Your task to perform on an android device: Go to Android settings Image 0: 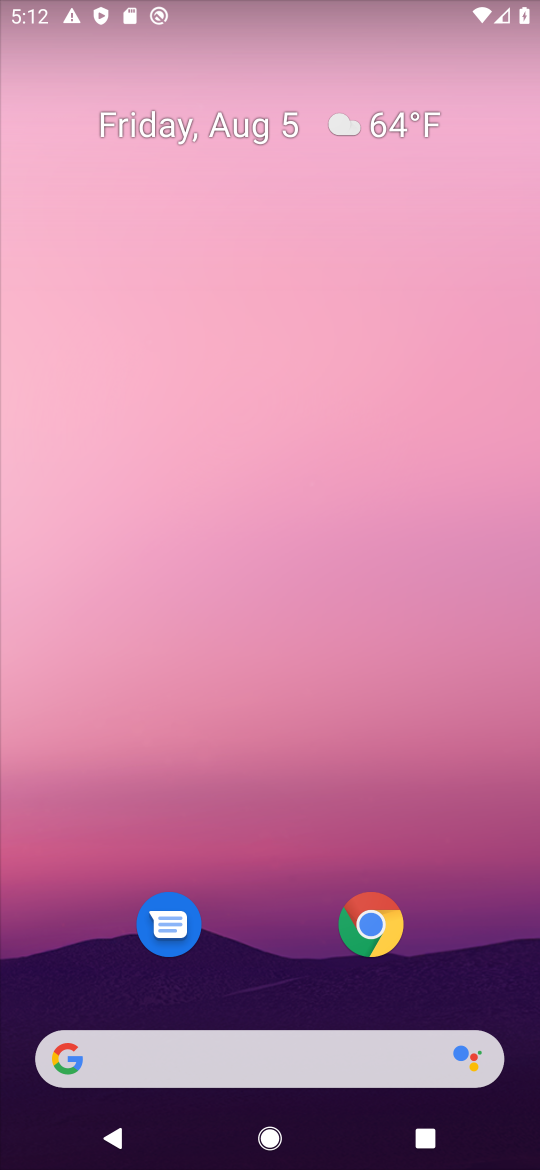
Step 0: drag from (198, 890) to (329, 152)
Your task to perform on an android device: Go to Android settings Image 1: 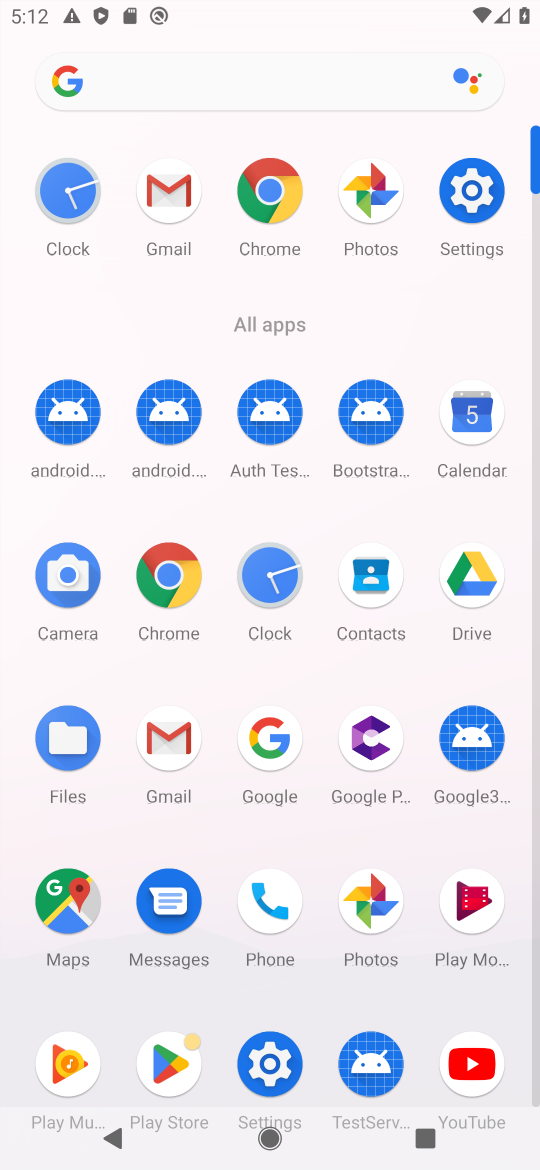
Step 1: click (282, 1052)
Your task to perform on an android device: Go to Android settings Image 2: 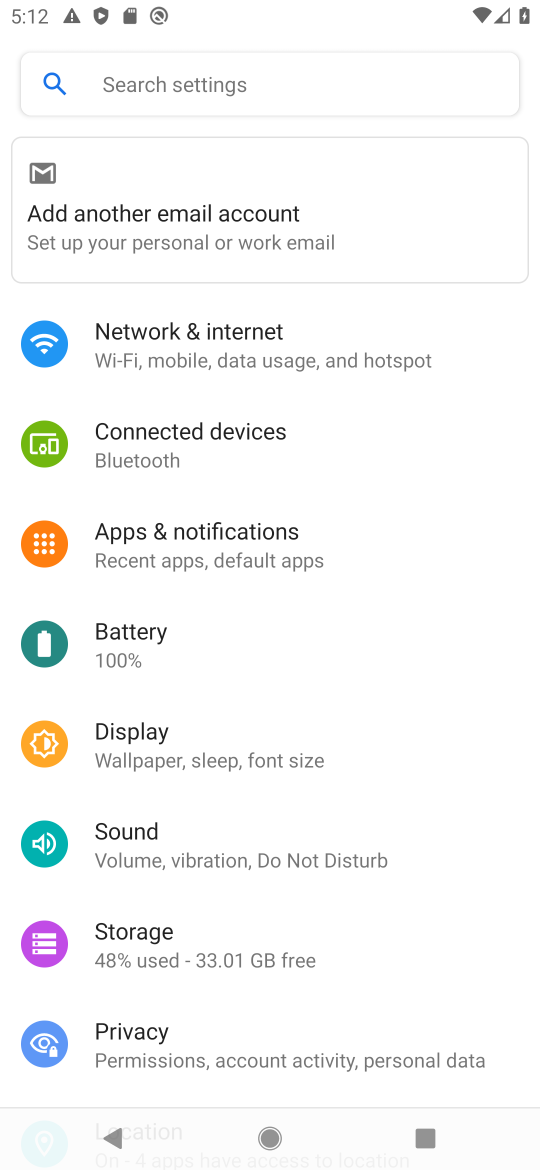
Step 2: drag from (384, 1061) to (354, 202)
Your task to perform on an android device: Go to Android settings Image 3: 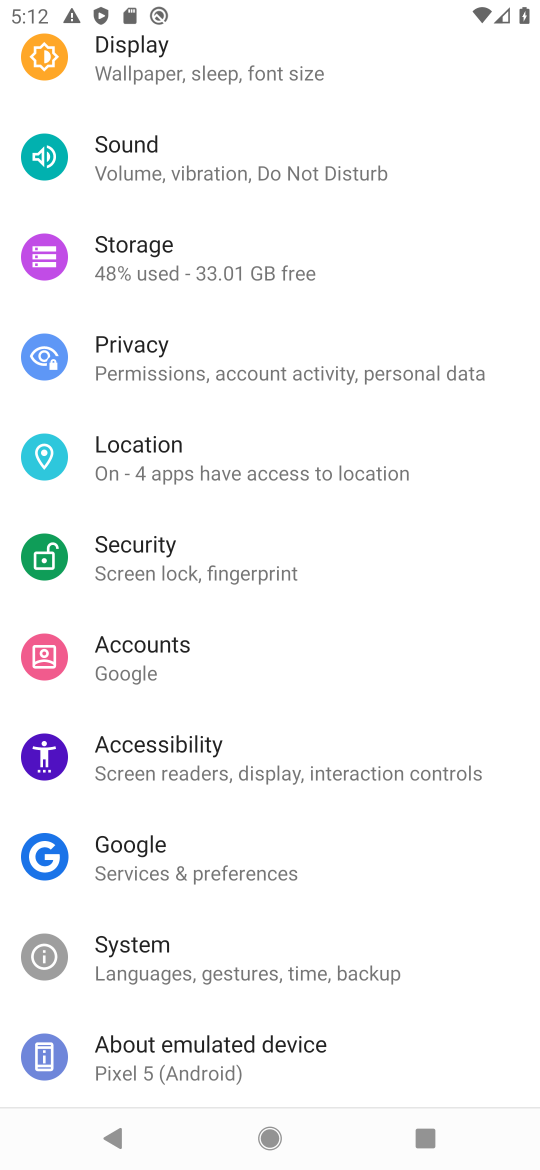
Step 3: drag from (382, 986) to (370, 172)
Your task to perform on an android device: Go to Android settings Image 4: 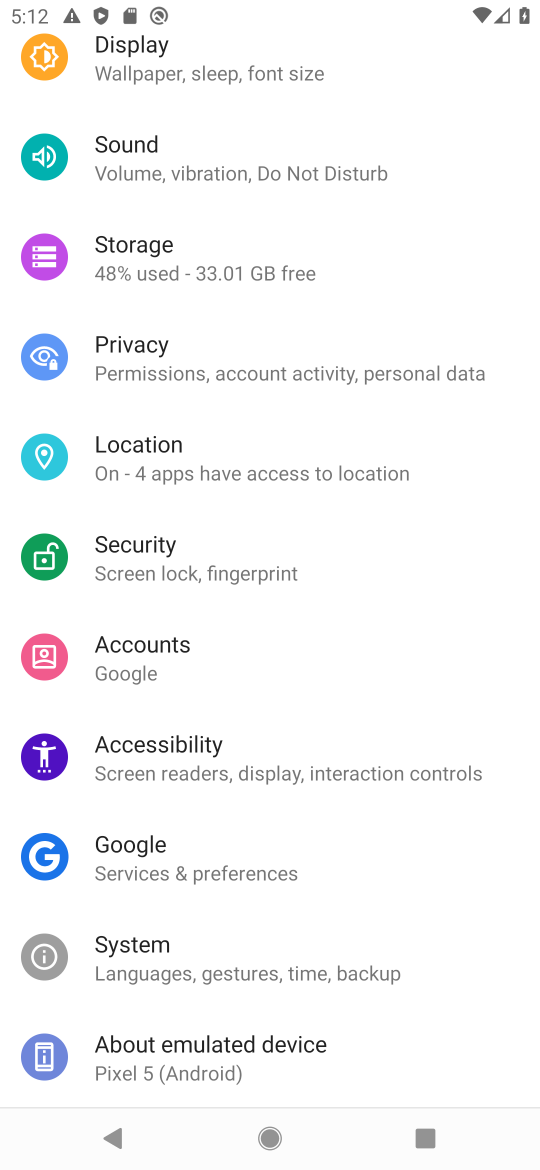
Step 4: click (240, 1062)
Your task to perform on an android device: Go to Android settings Image 5: 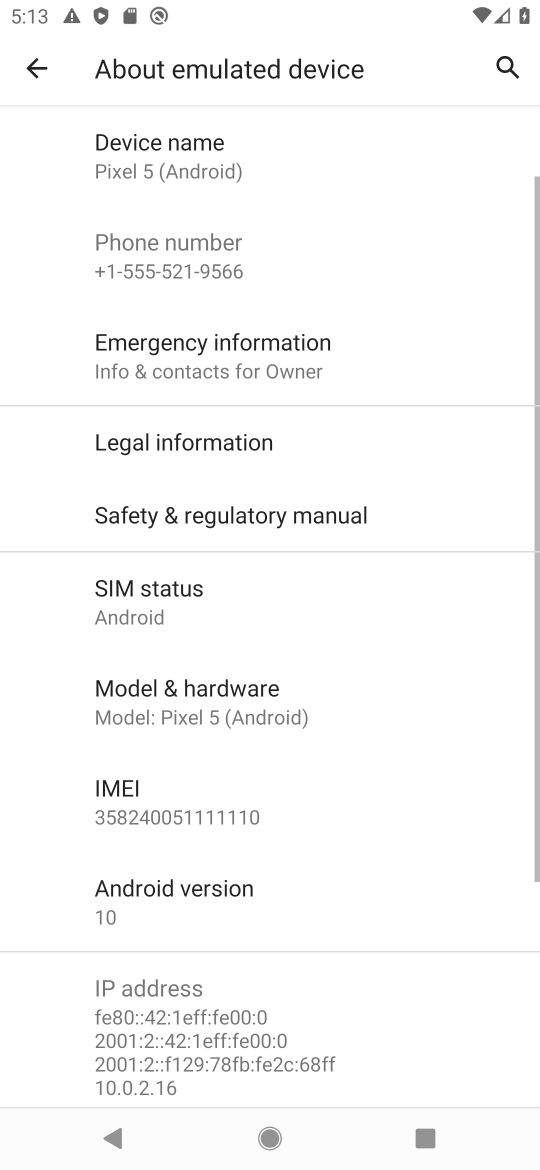
Step 5: task complete